Your task to perform on an android device: change notifications settings Image 0: 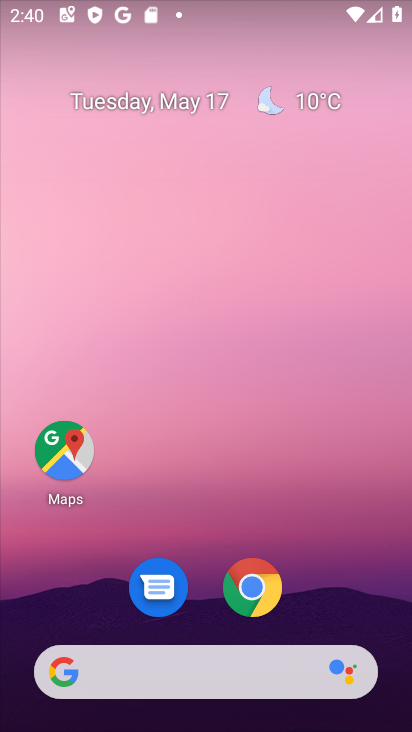
Step 0: drag from (294, 496) to (179, 1)
Your task to perform on an android device: change notifications settings Image 1: 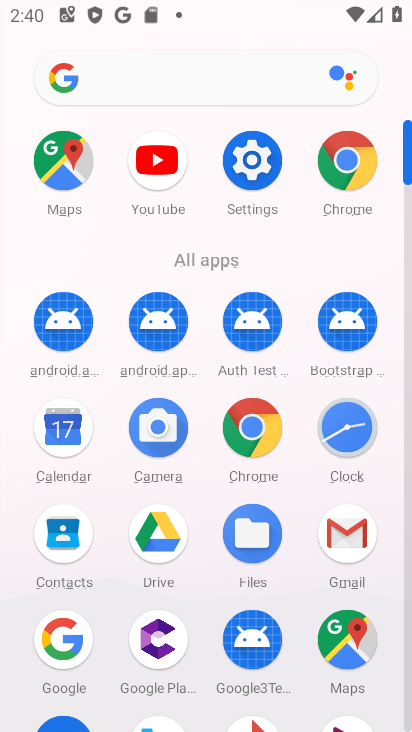
Step 1: drag from (13, 580) to (23, 221)
Your task to perform on an android device: change notifications settings Image 2: 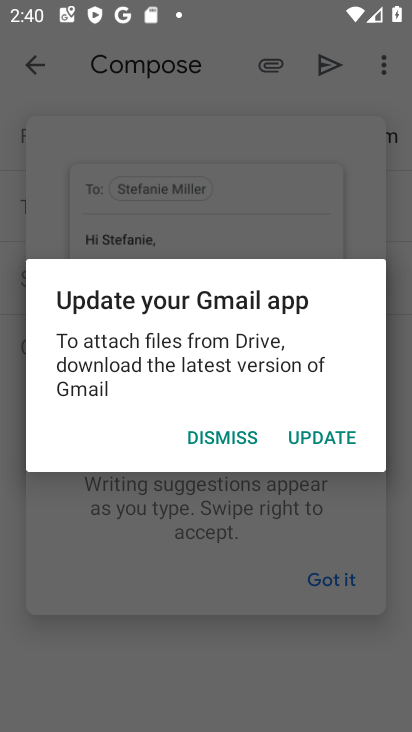
Step 2: press back button
Your task to perform on an android device: change notifications settings Image 3: 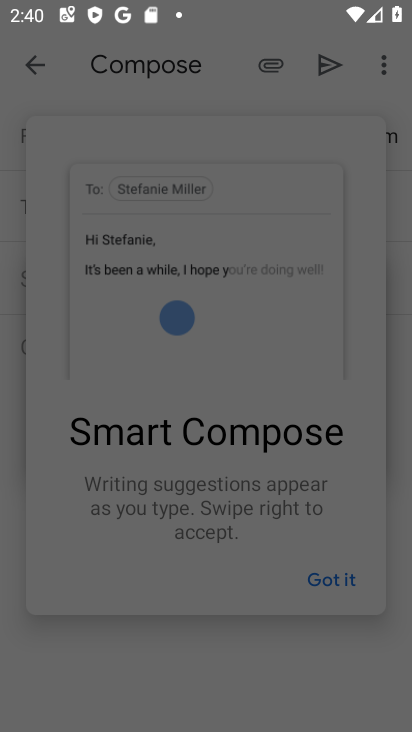
Step 3: press home button
Your task to perform on an android device: change notifications settings Image 4: 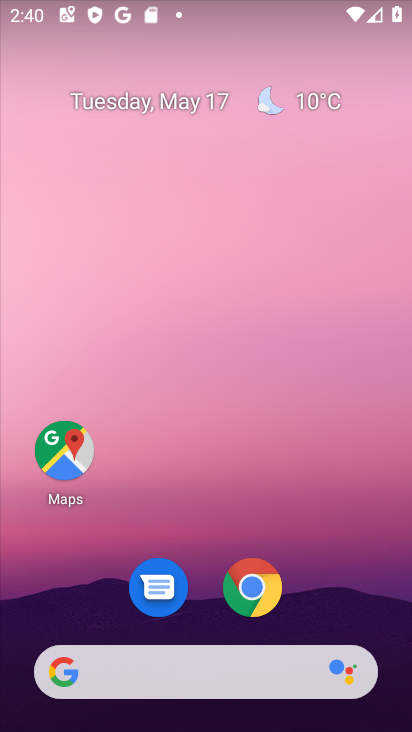
Step 4: drag from (327, 517) to (214, 3)
Your task to perform on an android device: change notifications settings Image 5: 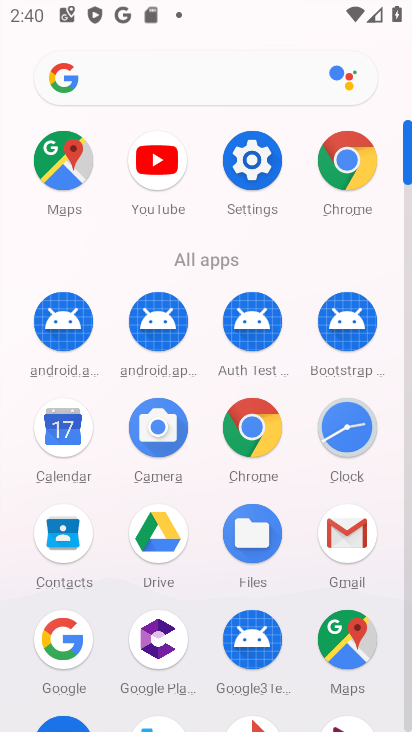
Step 5: click (254, 155)
Your task to perform on an android device: change notifications settings Image 6: 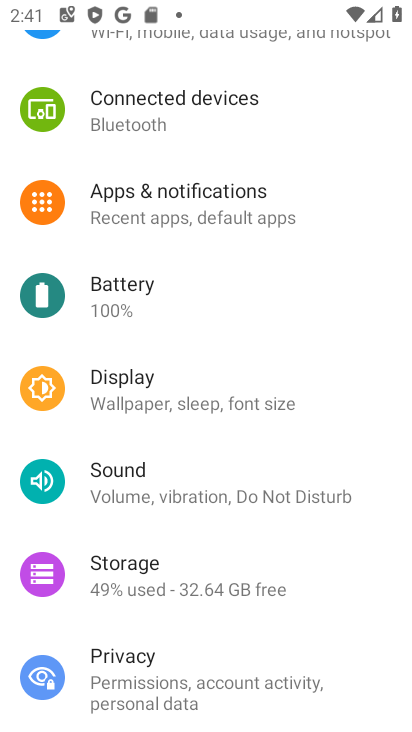
Step 6: click (239, 200)
Your task to perform on an android device: change notifications settings Image 7: 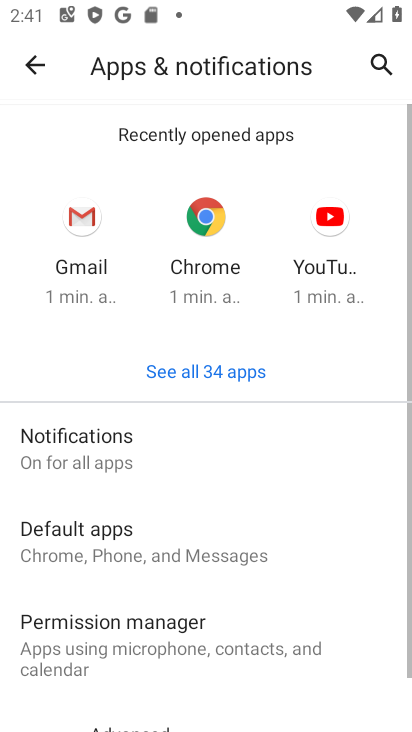
Step 7: drag from (259, 580) to (247, 132)
Your task to perform on an android device: change notifications settings Image 8: 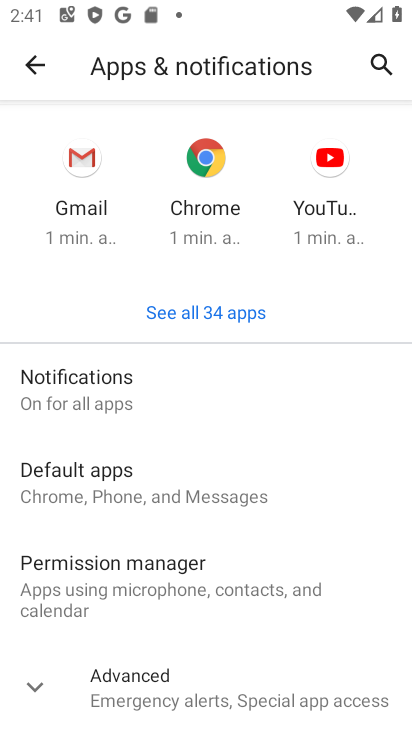
Step 8: drag from (200, 603) to (210, 493)
Your task to perform on an android device: change notifications settings Image 9: 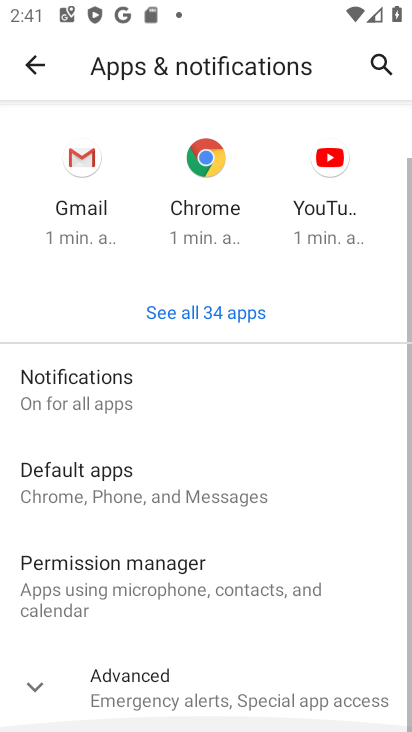
Step 9: click (62, 678)
Your task to perform on an android device: change notifications settings Image 10: 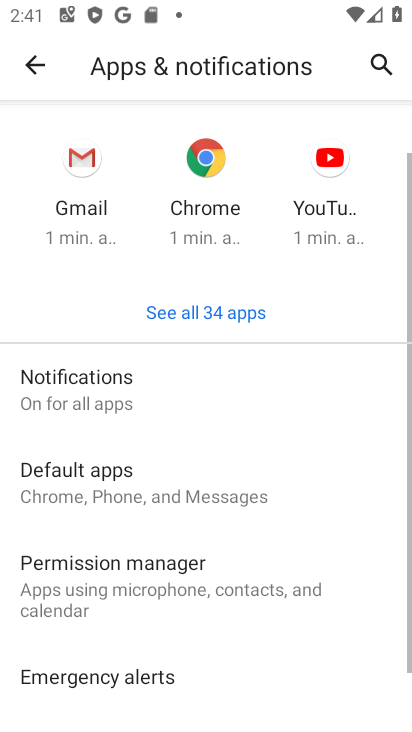
Step 10: task complete